Your task to perform on an android device: Go to Yahoo.com Image 0: 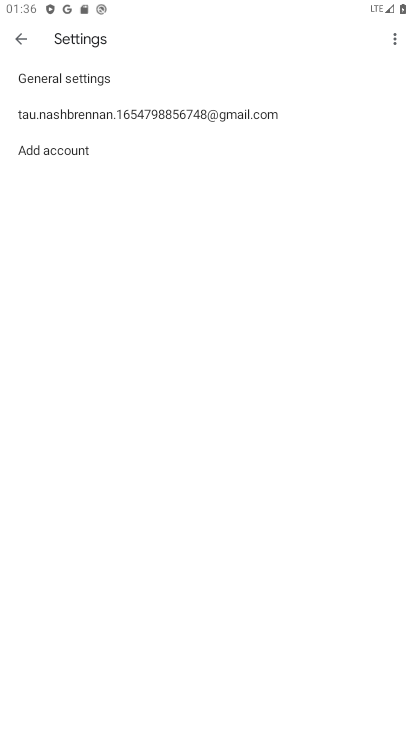
Step 0: press home button
Your task to perform on an android device: Go to Yahoo.com Image 1: 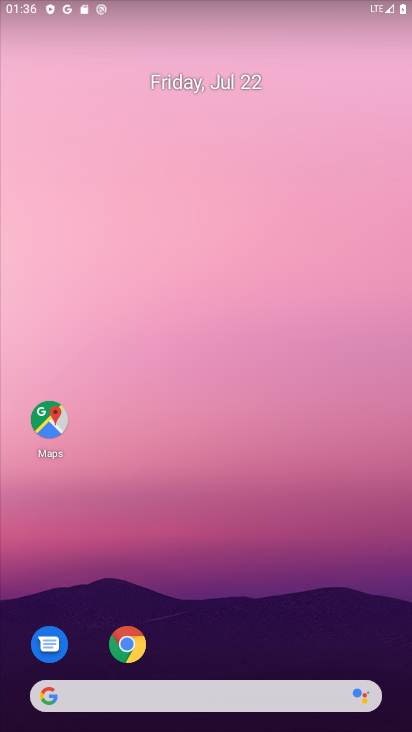
Step 1: drag from (218, 717) to (290, 133)
Your task to perform on an android device: Go to Yahoo.com Image 2: 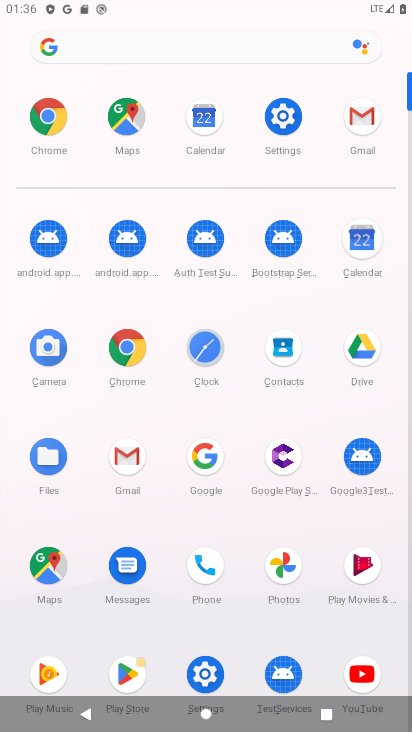
Step 2: click (220, 54)
Your task to perform on an android device: Go to Yahoo.com Image 3: 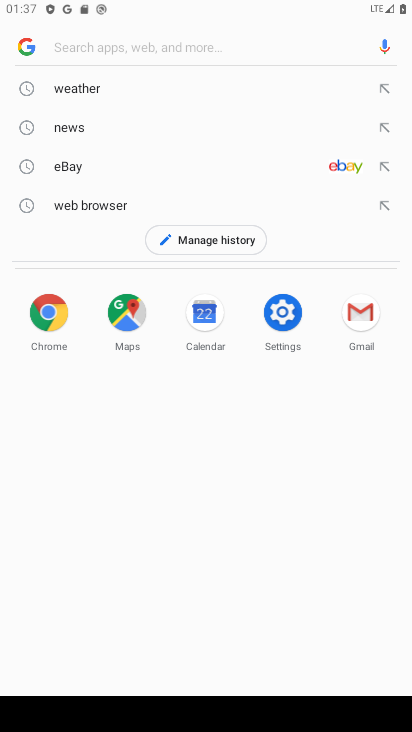
Step 3: type "yahoo.com"
Your task to perform on an android device: Go to Yahoo.com Image 4: 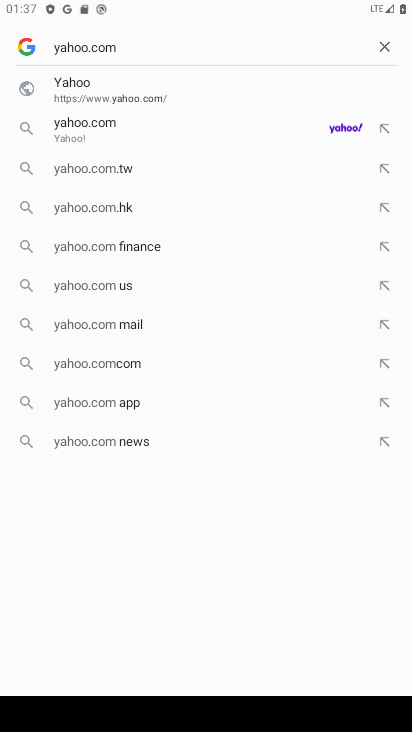
Step 4: click (109, 123)
Your task to perform on an android device: Go to Yahoo.com Image 5: 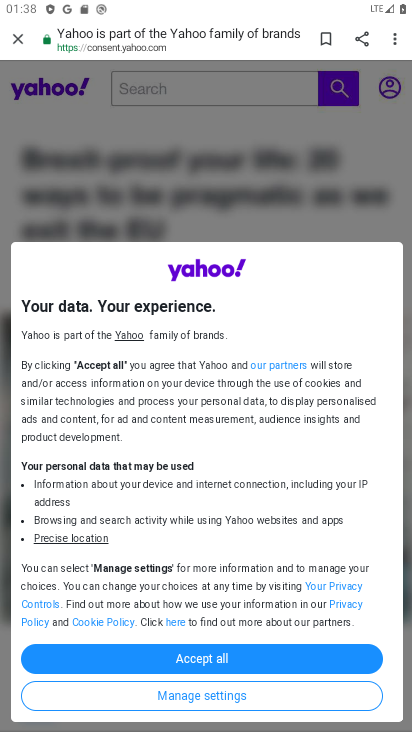
Step 5: task complete